Your task to perform on an android device: change the clock display to digital Image 0: 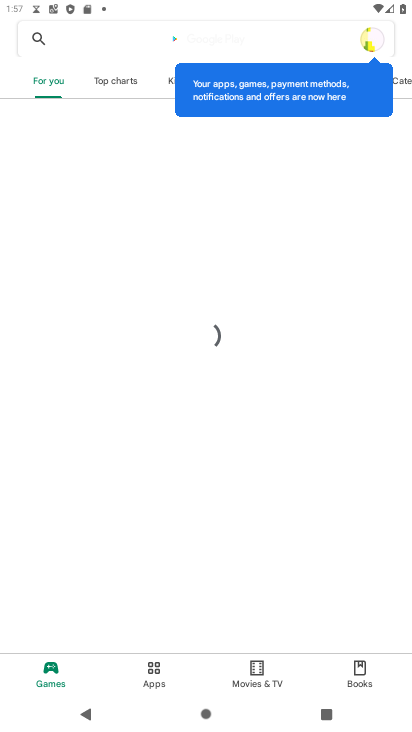
Step 0: press home button
Your task to perform on an android device: change the clock display to digital Image 1: 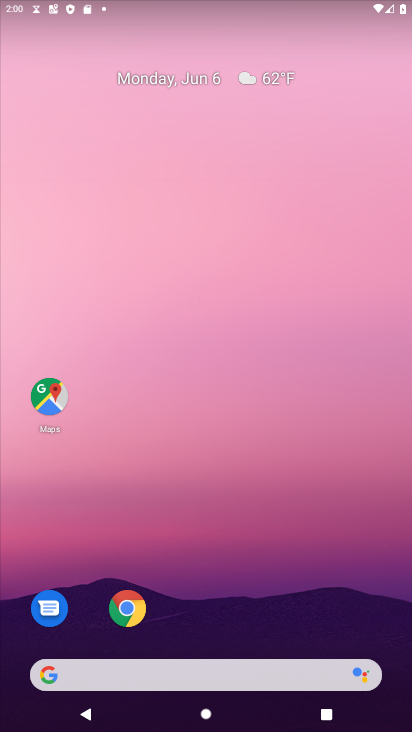
Step 1: drag from (298, 527) to (379, 8)
Your task to perform on an android device: change the clock display to digital Image 2: 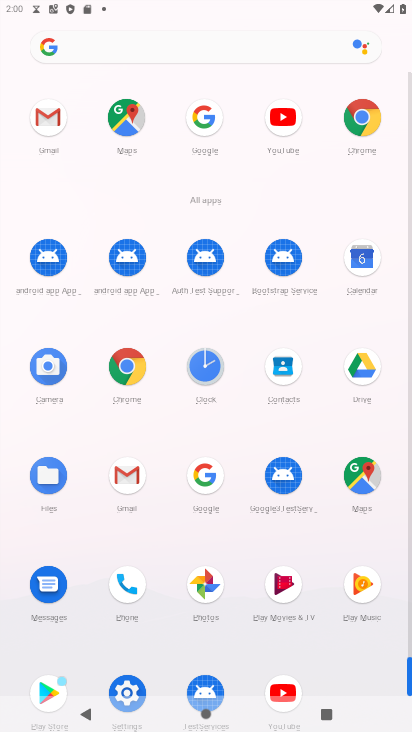
Step 2: click (211, 365)
Your task to perform on an android device: change the clock display to digital Image 3: 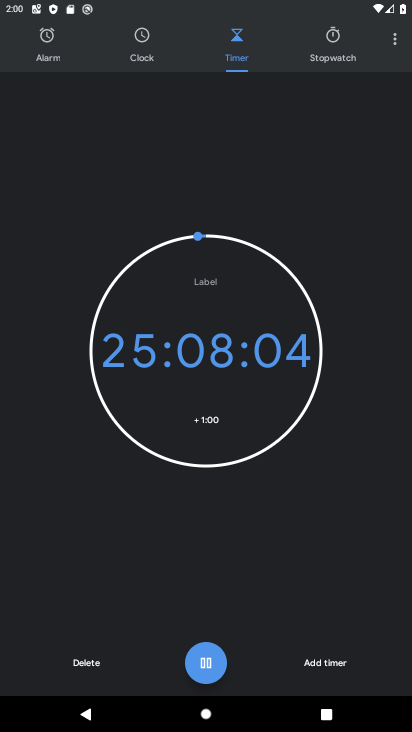
Step 3: click (393, 36)
Your task to perform on an android device: change the clock display to digital Image 4: 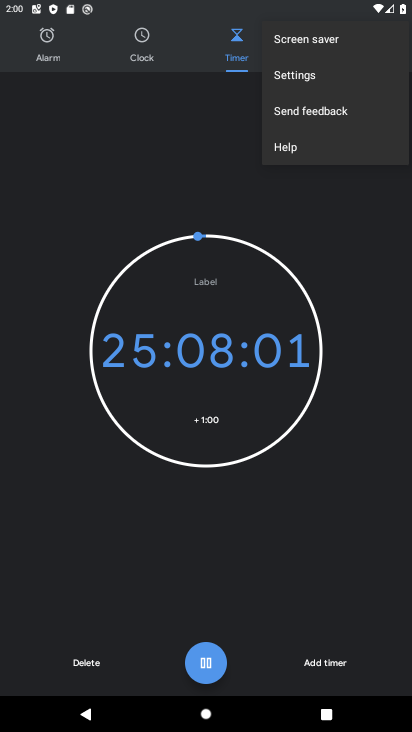
Step 4: click (304, 74)
Your task to perform on an android device: change the clock display to digital Image 5: 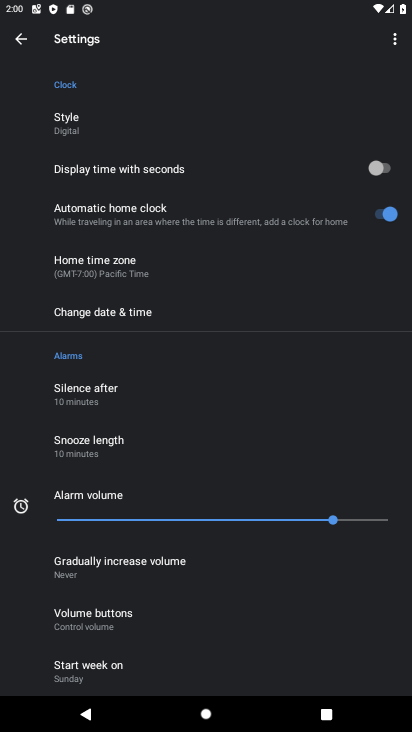
Step 5: task complete